Your task to perform on an android device: delete the emails in spam in the gmail app Image 0: 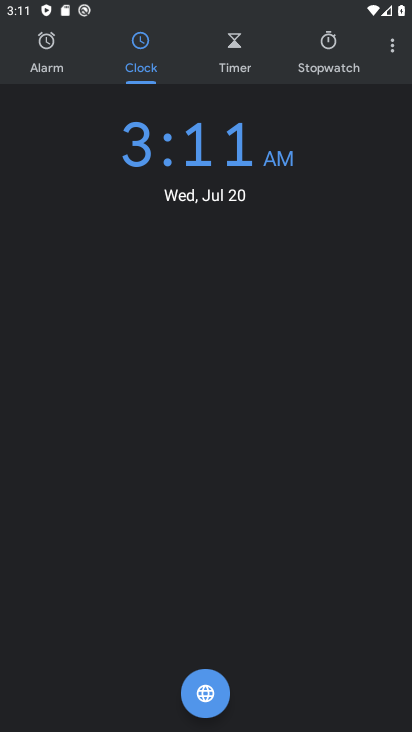
Step 0: press home button
Your task to perform on an android device: delete the emails in spam in the gmail app Image 1: 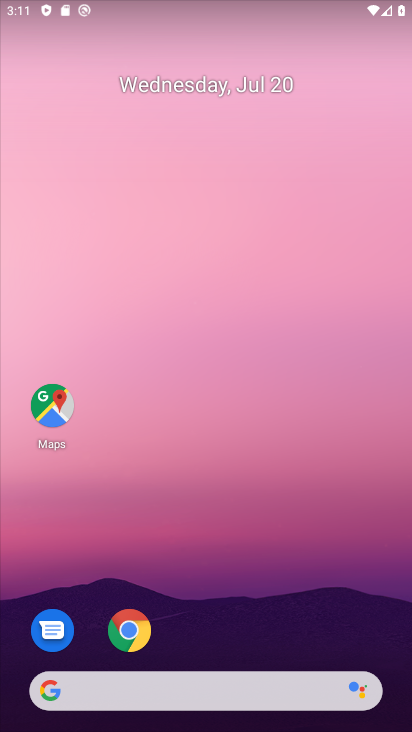
Step 1: drag from (212, 613) to (211, 125)
Your task to perform on an android device: delete the emails in spam in the gmail app Image 2: 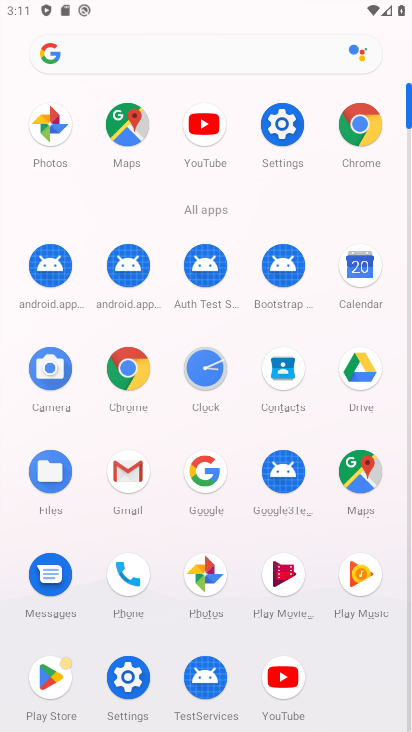
Step 2: click (128, 478)
Your task to perform on an android device: delete the emails in spam in the gmail app Image 3: 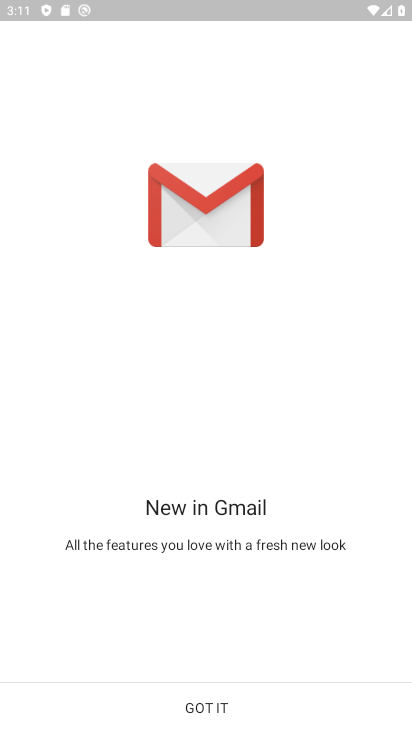
Step 3: click (202, 715)
Your task to perform on an android device: delete the emails in spam in the gmail app Image 4: 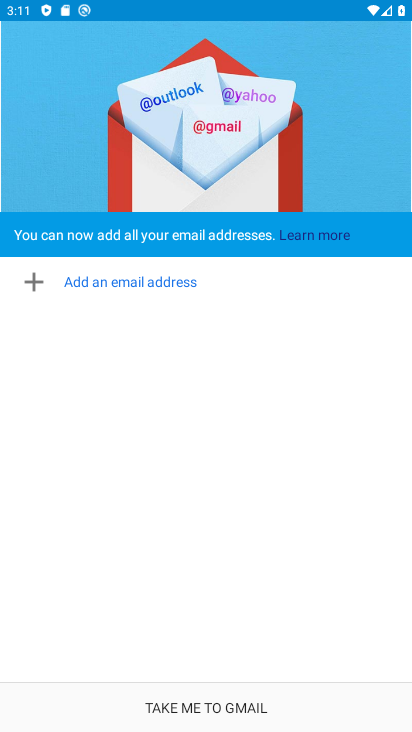
Step 4: click (202, 715)
Your task to perform on an android device: delete the emails in spam in the gmail app Image 5: 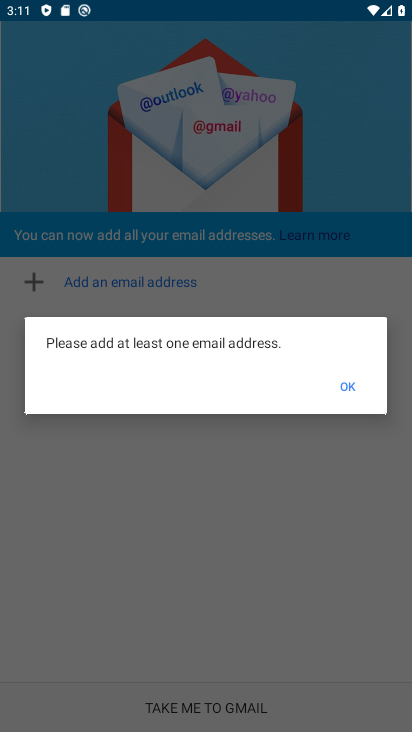
Step 5: click (352, 386)
Your task to perform on an android device: delete the emails in spam in the gmail app Image 6: 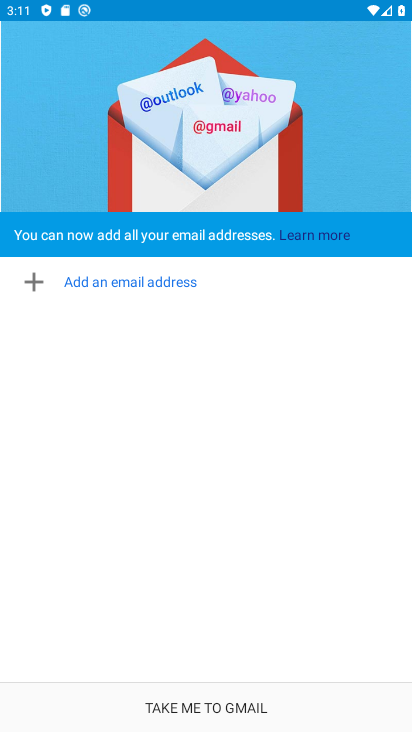
Step 6: click (223, 706)
Your task to perform on an android device: delete the emails in spam in the gmail app Image 7: 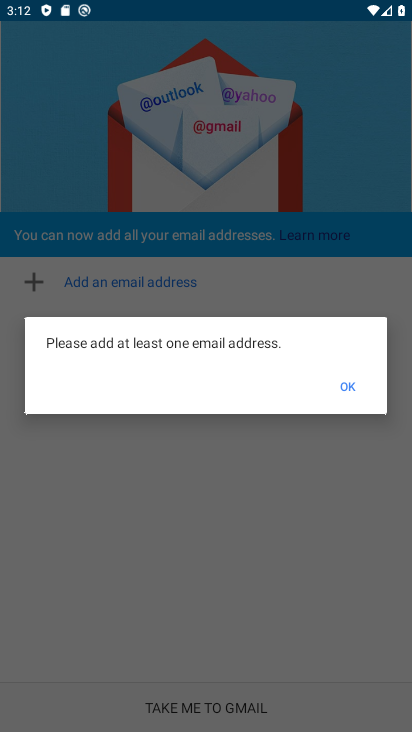
Step 7: click (354, 391)
Your task to perform on an android device: delete the emails in spam in the gmail app Image 8: 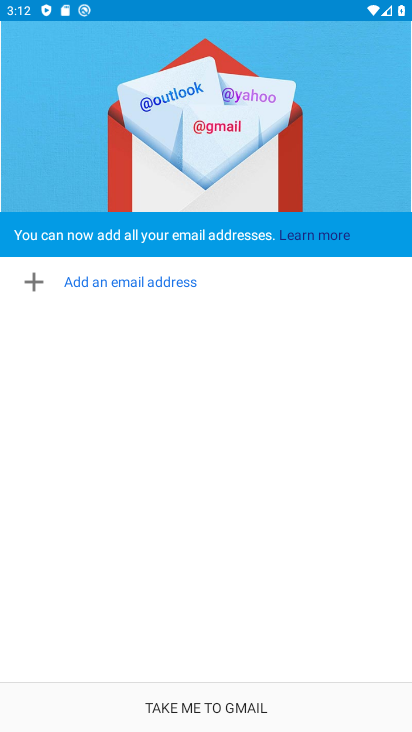
Step 8: click (205, 705)
Your task to perform on an android device: delete the emails in spam in the gmail app Image 9: 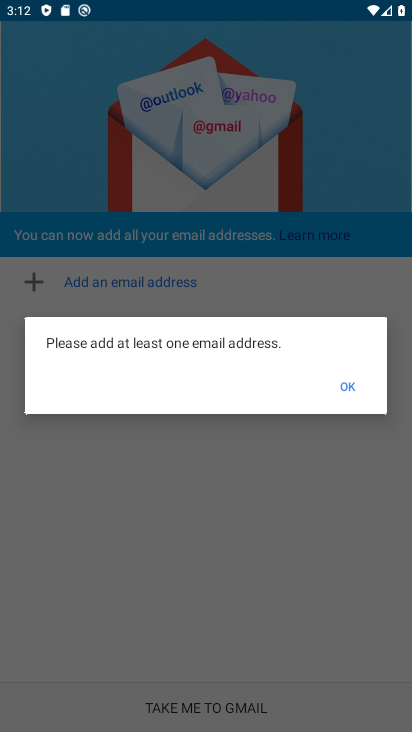
Step 9: click (353, 385)
Your task to perform on an android device: delete the emails in spam in the gmail app Image 10: 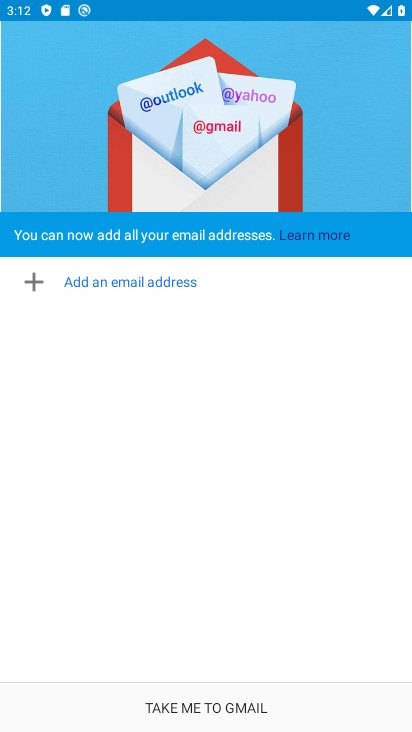
Step 10: task complete